Your task to perform on an android device: open app "Pinterest" (install if not already installed) and enter user name: "Switzerland@yahoo.com" and password: "arithmetics" Image 0: 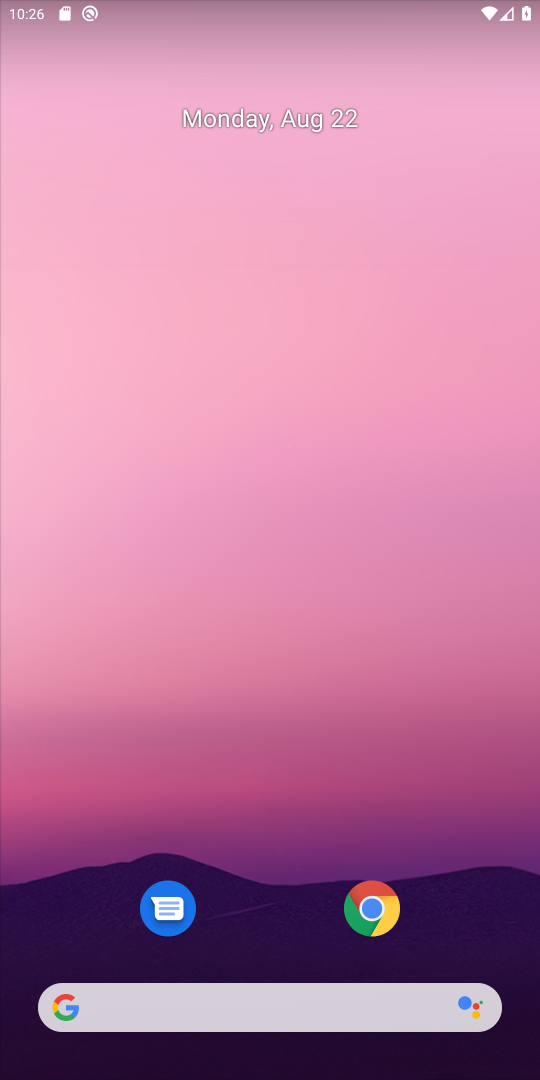
Step 0: drag from (270, 951) to (255, 30)
Your task to perform on an android device: open app "Pinterest" (install if not already installed) and enter user name: "Switzerland@yahoo.com" and password: "arithmetics" Image 1: 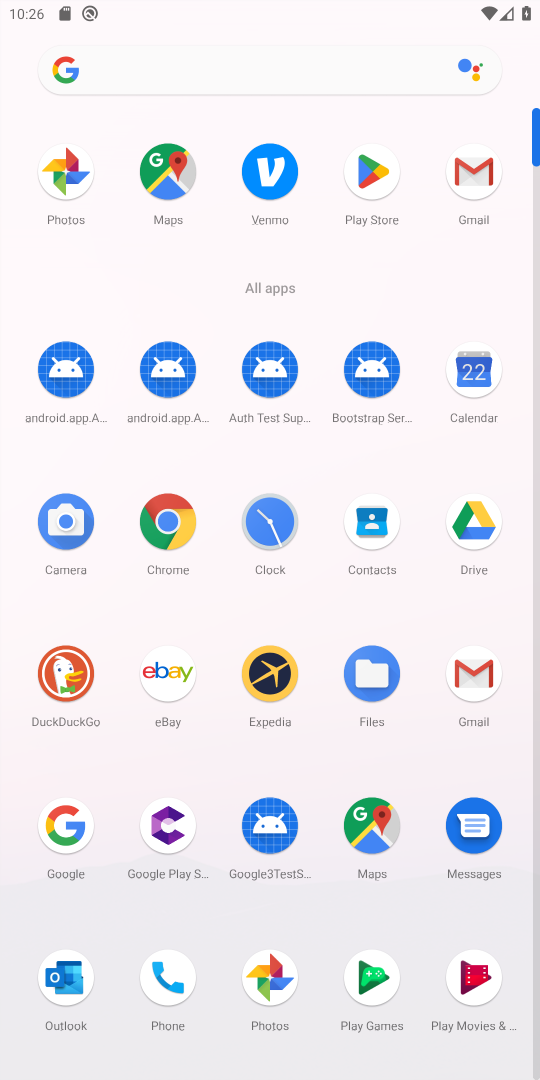
Step 1: click (353, 173)
Your task to perform on an android device: open app "Pinterest" (install if not already installed) and enter user name: "Switzerland@yahoo.com" and password: "arithmetics" Image 2: 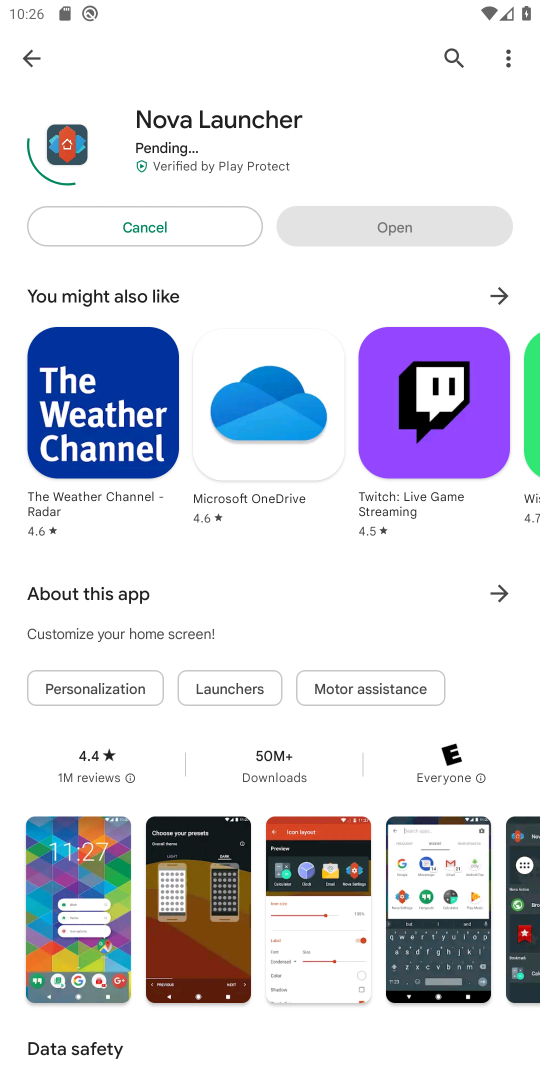
Step 2: click (450, 68)
Your task to perform on an android device: open app "Pinterest" (install if not already installed) and enter user name: "Switzerland@yahoo.com" and password: "arithmetics" Image 3: 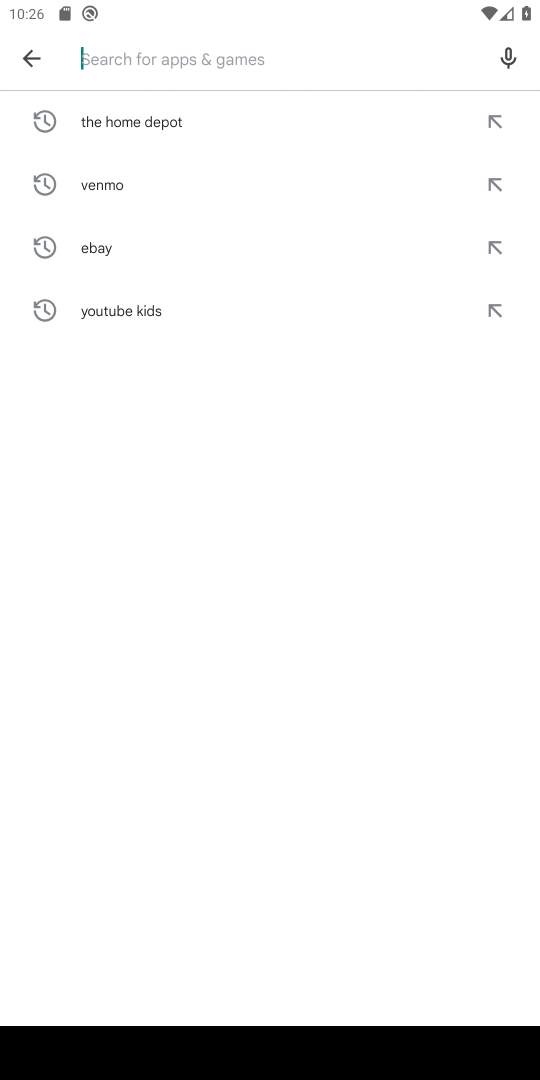
Step 3: type "pinterrest"
Your task to perform on an android device: open app "Pinterest" (install if not already installed) and enter user name: "Switzerland@yahoo.com" and password: "arithmetics" Image 4: 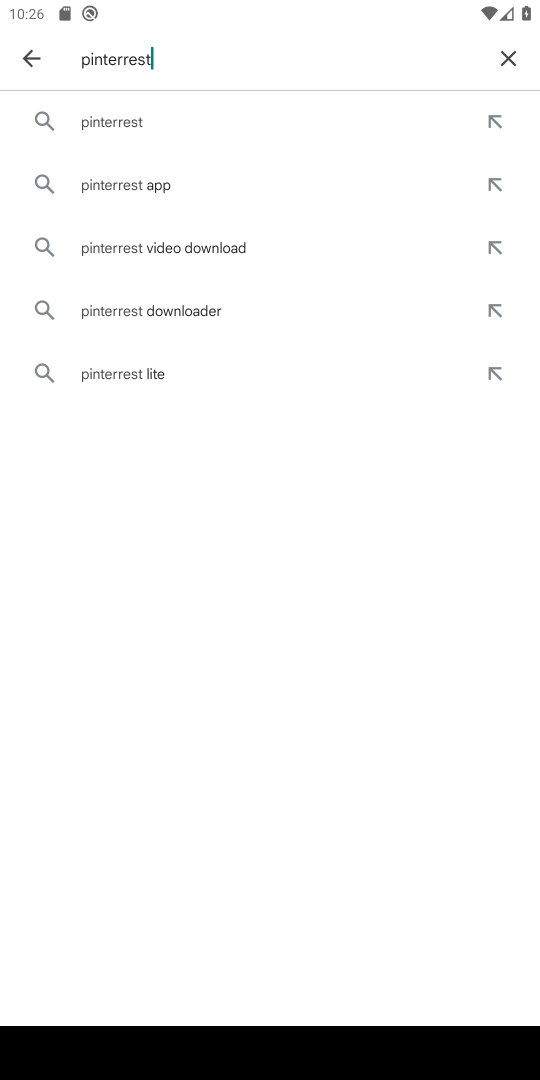
Step 4: click (205, 95)
Your task to perform on an android device: open app "Pinterest" (install if not already installed) and enter user name: "Switzerland@yahoo.com" and password: "arithmetics" Image 5: 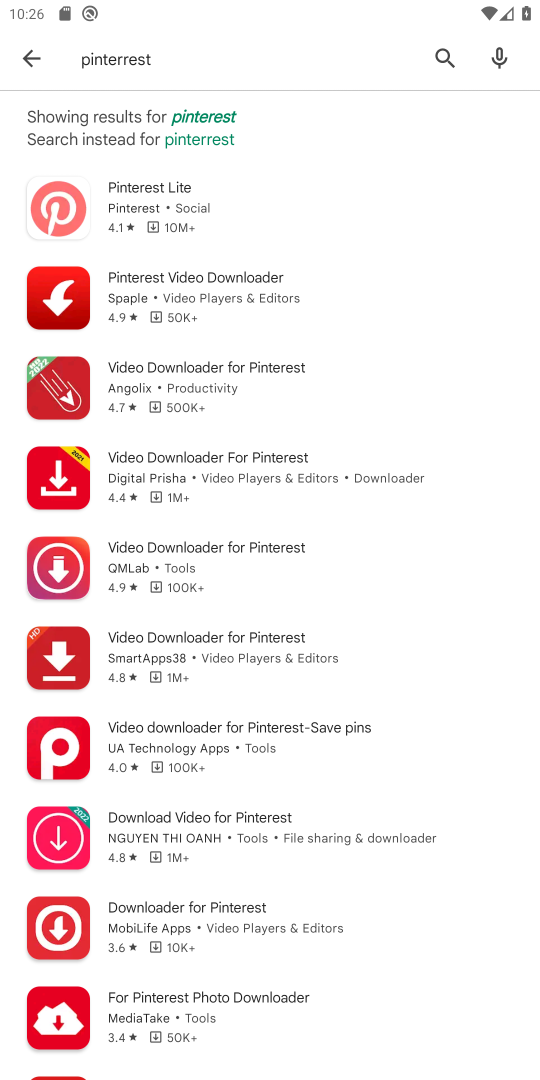
Step 5: click (236, 196)
Your task to perform on an android device: open app "Pinterest" (install if not already installed) and enter user name: "Switzerland@yahoo.com" and password: "arithmetics" Image 6: 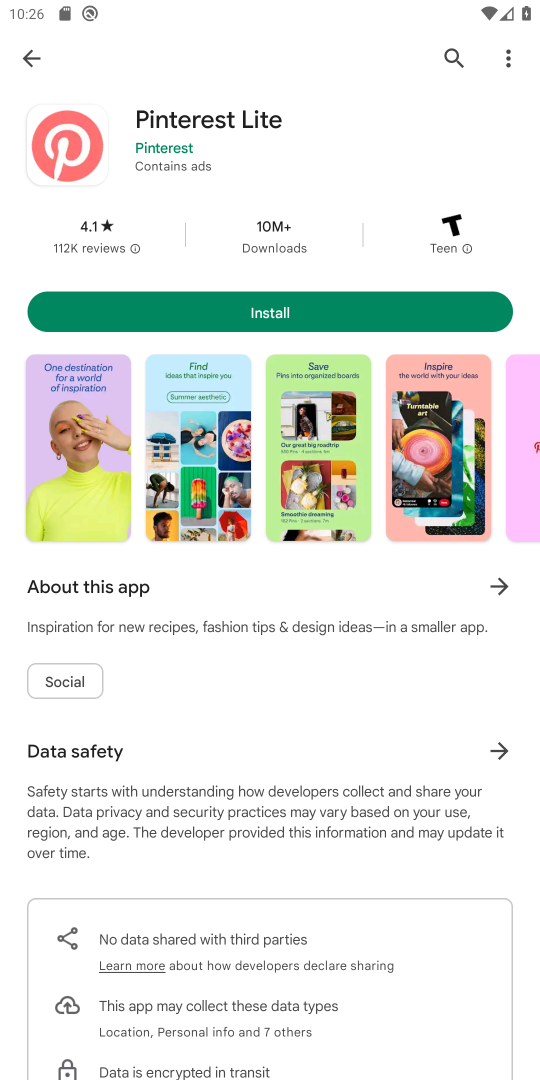
Step 6: click (295, 300)
Your task to perform on an android device: open app "Pinterest" (install if not already installed) and enter user name: "Switzerland@yahoo.com" and password: "arithmetics" Image 7: 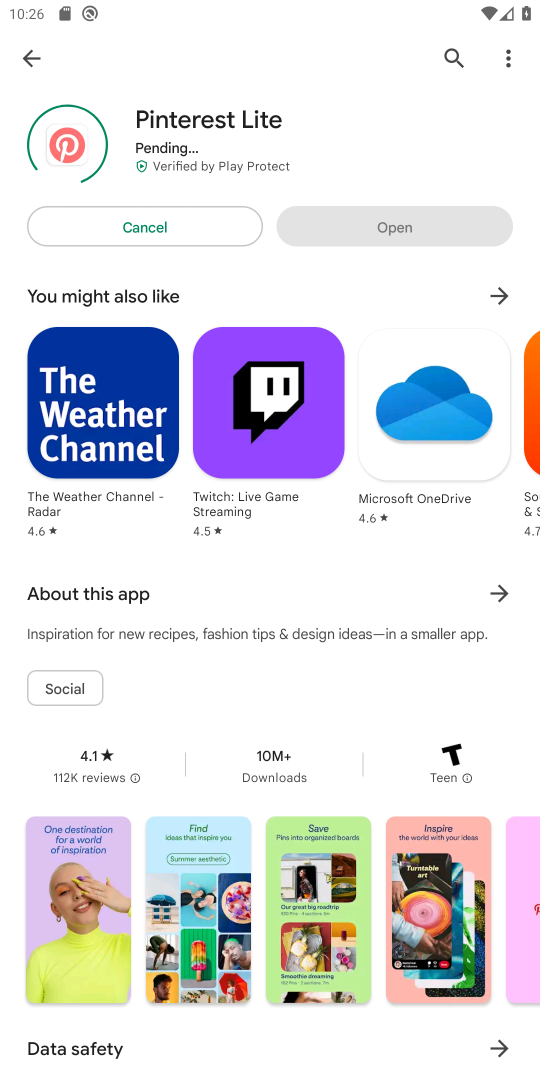
Step 7: task complete